Your task to perform on an android device: delete the emails in spam in the gmail app Image 0: 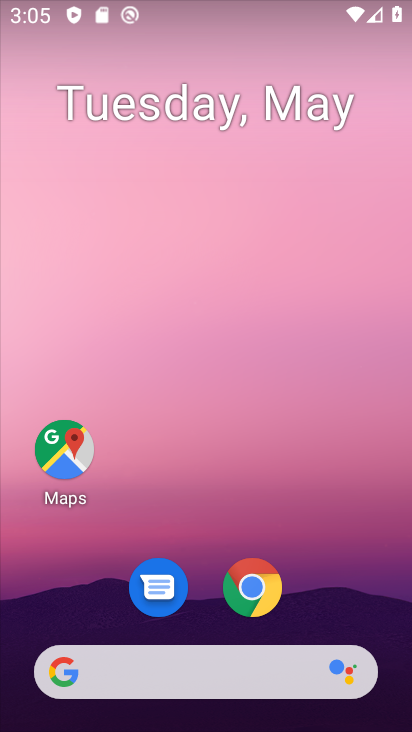
Step 0: drag from (349, 503) to (345, 232)
Your task to perform on an android device: delete the emails in spam in the gmail app Image 1: 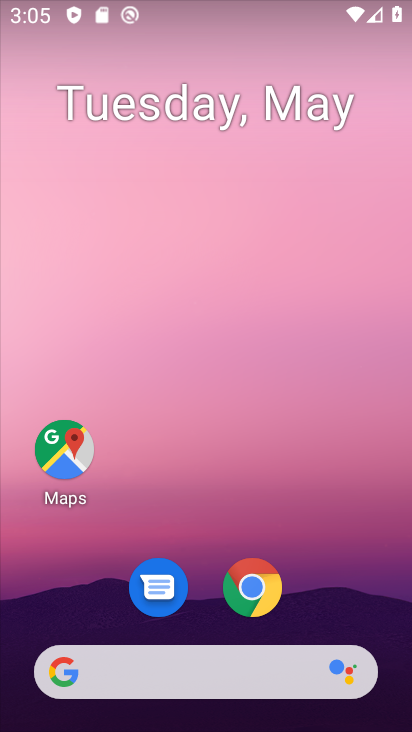
Step 1: click (346, 244)
Your task to perform on an android device: delete the emails in spam in the gmail app Image 2: 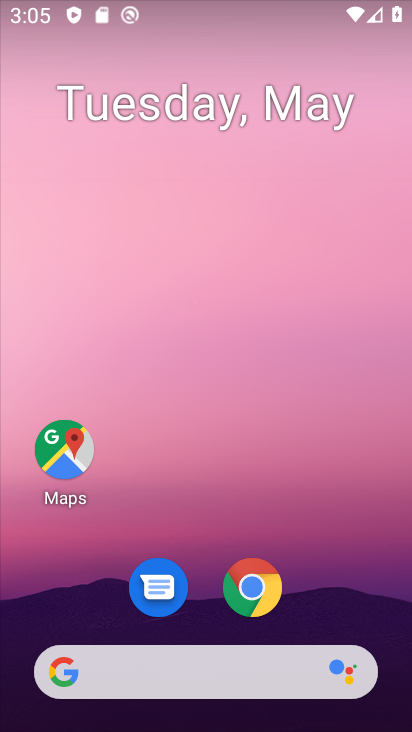
Step 2: drag from (224, 623) to (255, 164)
Your task to perform on an android device: delete the emails in spam in the gmail app Image 3: 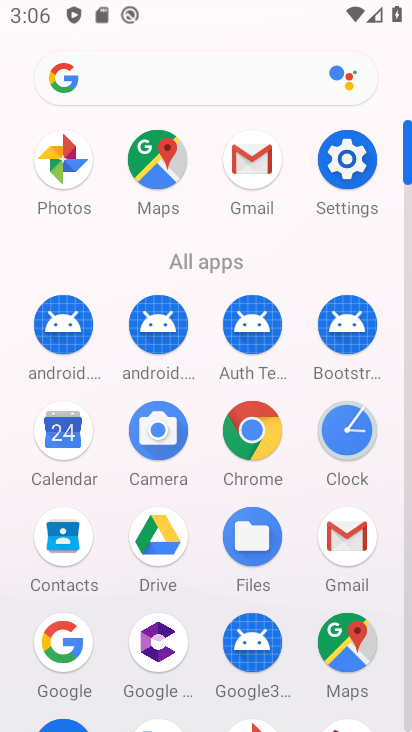
Step 3: click (337, 522)
Your task to perform on an android device: delete the emails in spam in the gmail app Image 4: 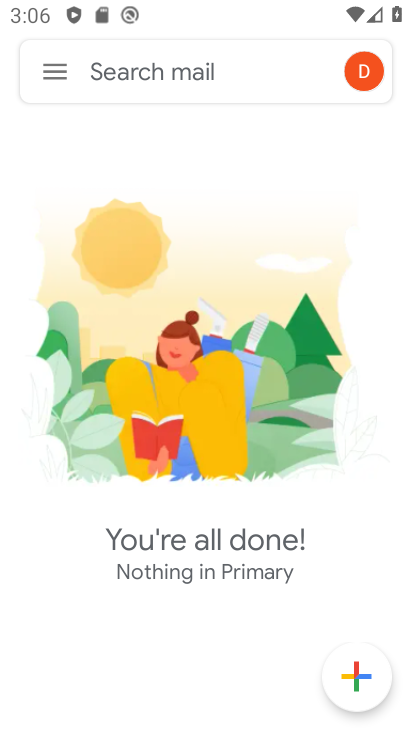
Step 4: click (39, 66)
Your task to perform on an android device: delete the emails in spam in the gmail app Image 5: 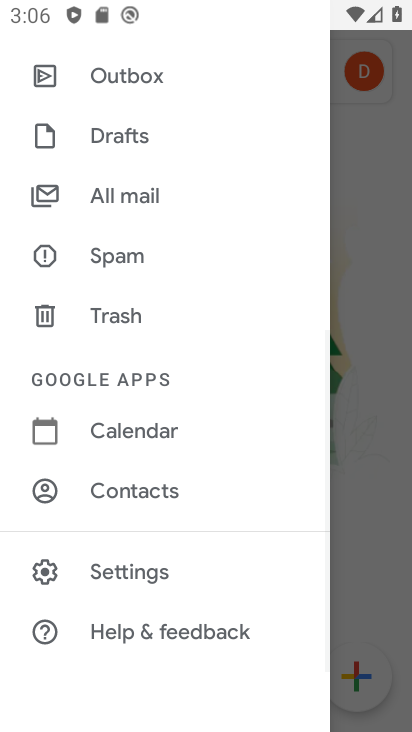
Step 5: click (153, 258)
Your task to perform on an android device: delete the emails in spam in the gmail app Image 6: 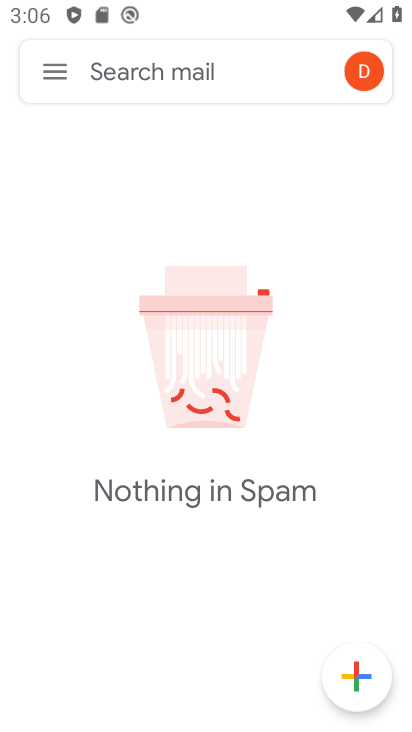
Step 6: task complete